Your task to perform on an android device: clear history in the chrome app Image 0: 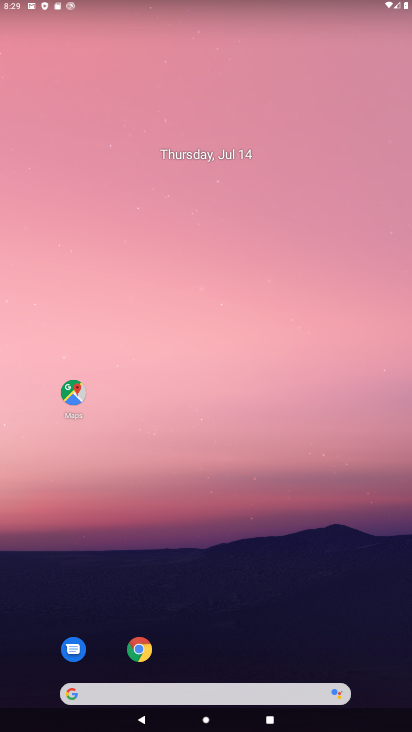
Step 0: drag from (325, 585) to (385, 27)
Your task to perform on an android device: clear history in the chrome app Image 1: 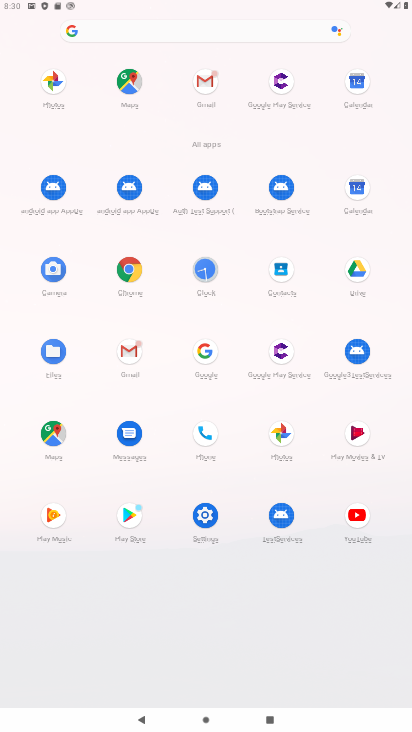
Step 1: click (129, 273)
Your task to perform on an android device: clear history in the chrome app Image 2: 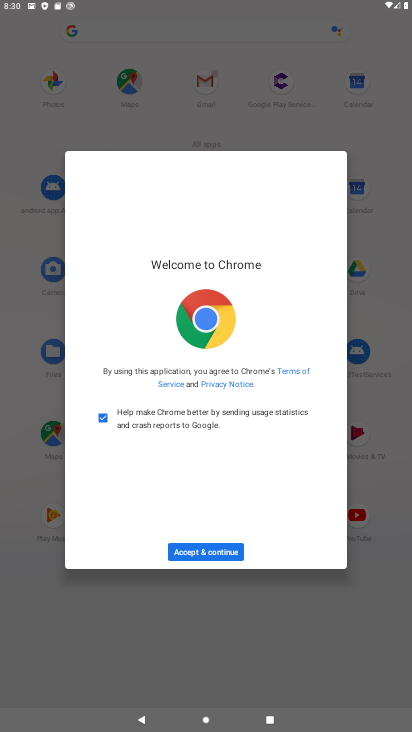
Step 2: click (209, 557)
Your task to perform on an android device: clear history in the chrome app Image 3: 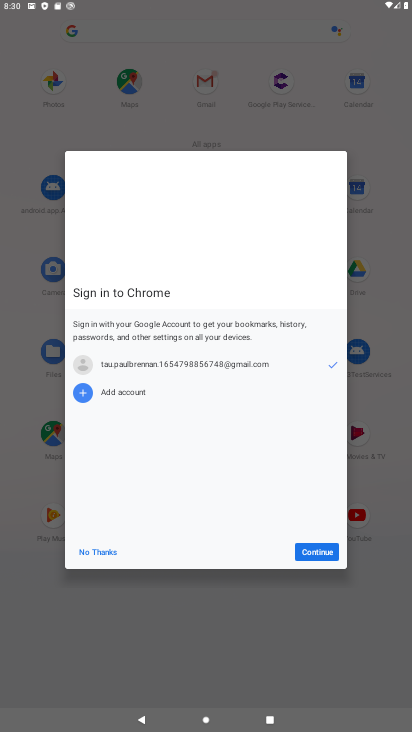
Step 3: click (83, 550)
Your task to perform on an android device: clear history in the chrome app Image 4: 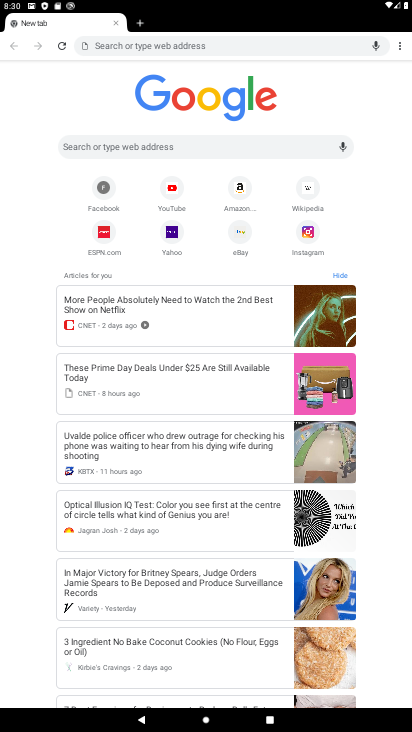
Step 4: task complete